Your task to perform on an android device: delete a single message in the gmail app Image 0: 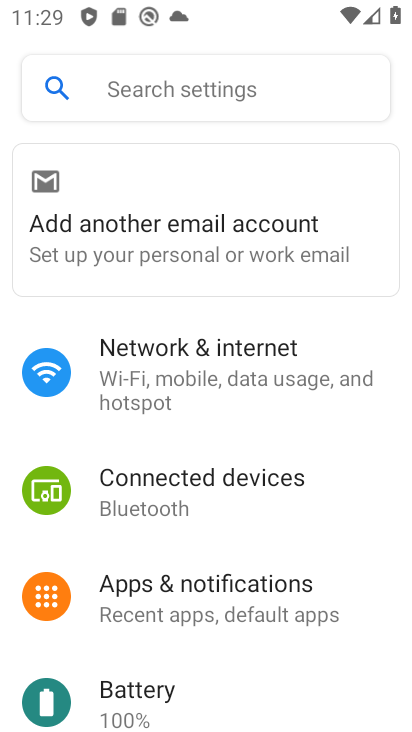
Step 0: press home button
Your task to perform on an android device: delete a single message in the gmail app Image 1: 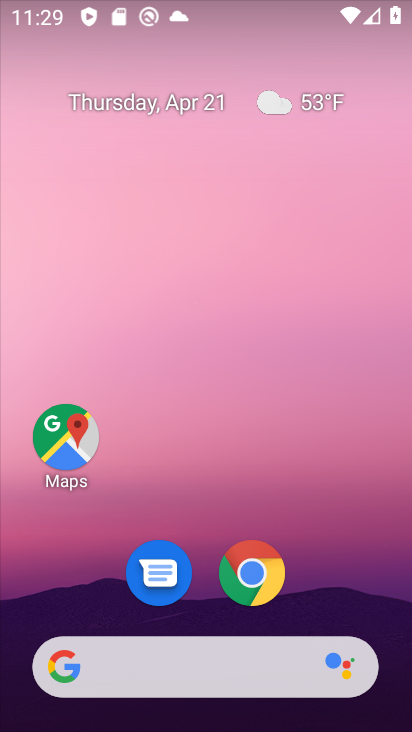
Step 1: drag from (164, 655) to (297, 197)
Your task to perform on an android device: delete a single message in the gmail app Image 2: 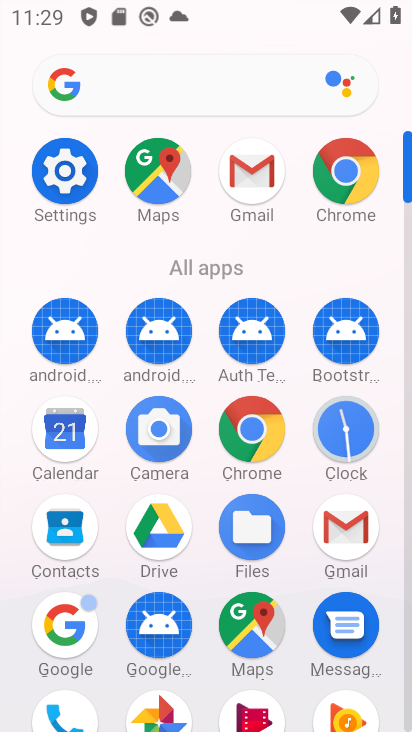
Step 2: click (257, 187)
Your task to perform on an android device: delete a single message in the gmail app Image 3: 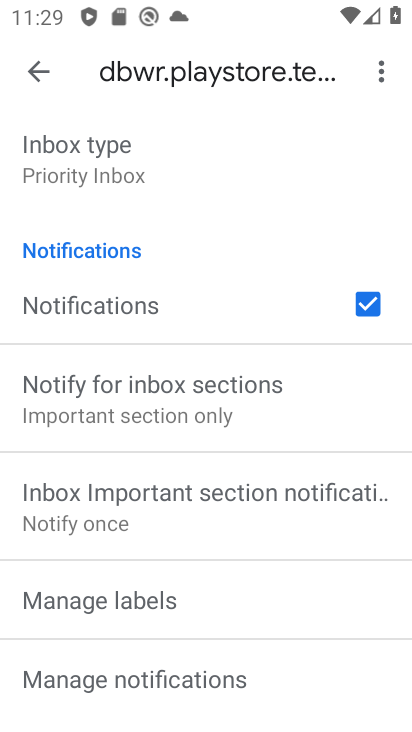
Step 3: click (40, 70)
Your task to perform on an android device: delete a single message in the gmail app Image 4: 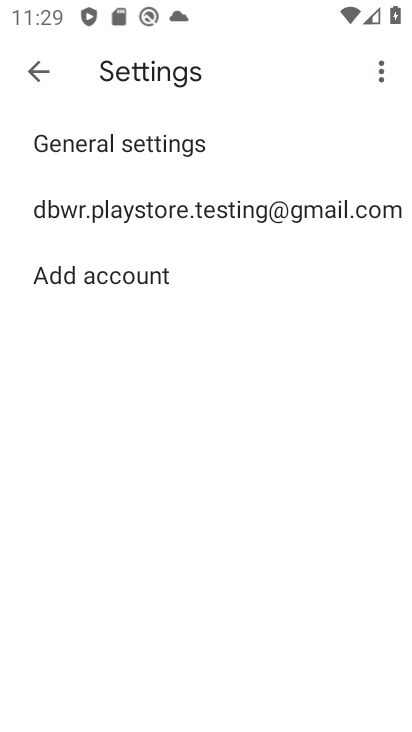
Step 4: click (43, 76)
Your task to perform on an android device: delete a single message in the gmail app Image 5: 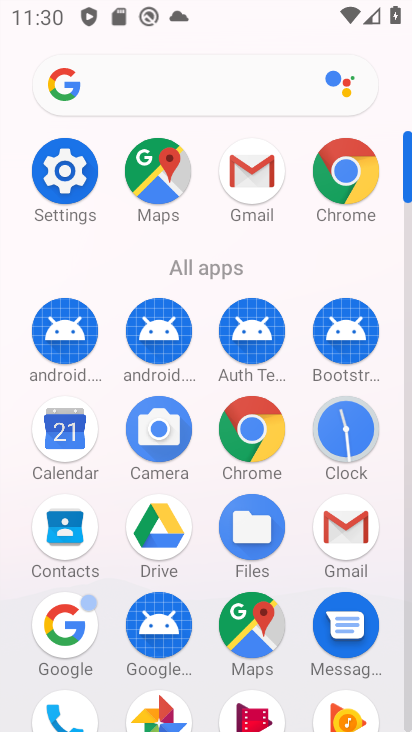
Step 5: click (247, 171)
Your task to perform on an android device: delete a single message in the gmail app Image 6: 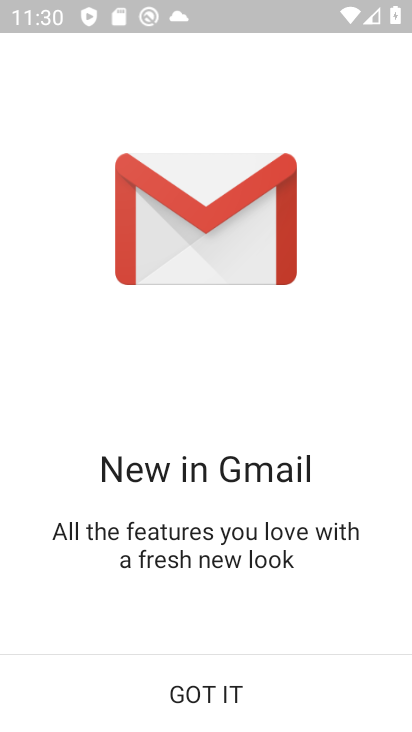
Step 6: click (234, 700)
Your task to perform on an android device: delete a single message in the gmail app Image 7: 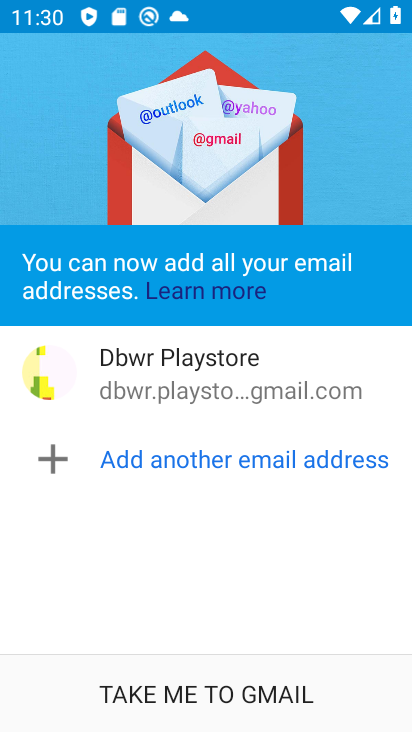
Step 7: click (226, 695)
Your task to perform on an android device: delete a single message in the gmail app Image 8: 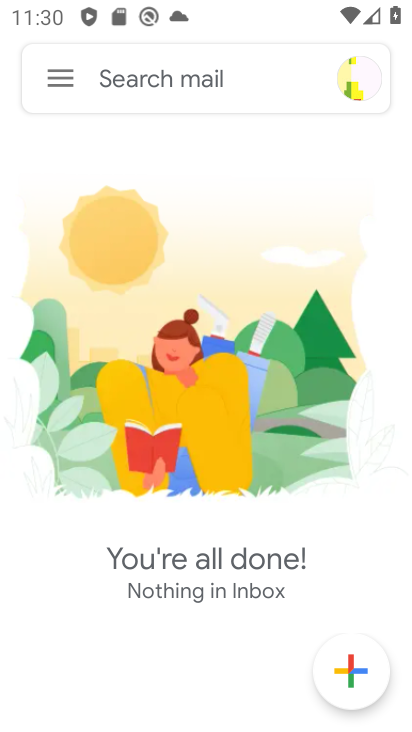
Step 8: task complete